Your task to perform on an android device: Open calendar and show me the fourth week of next month Image 0: 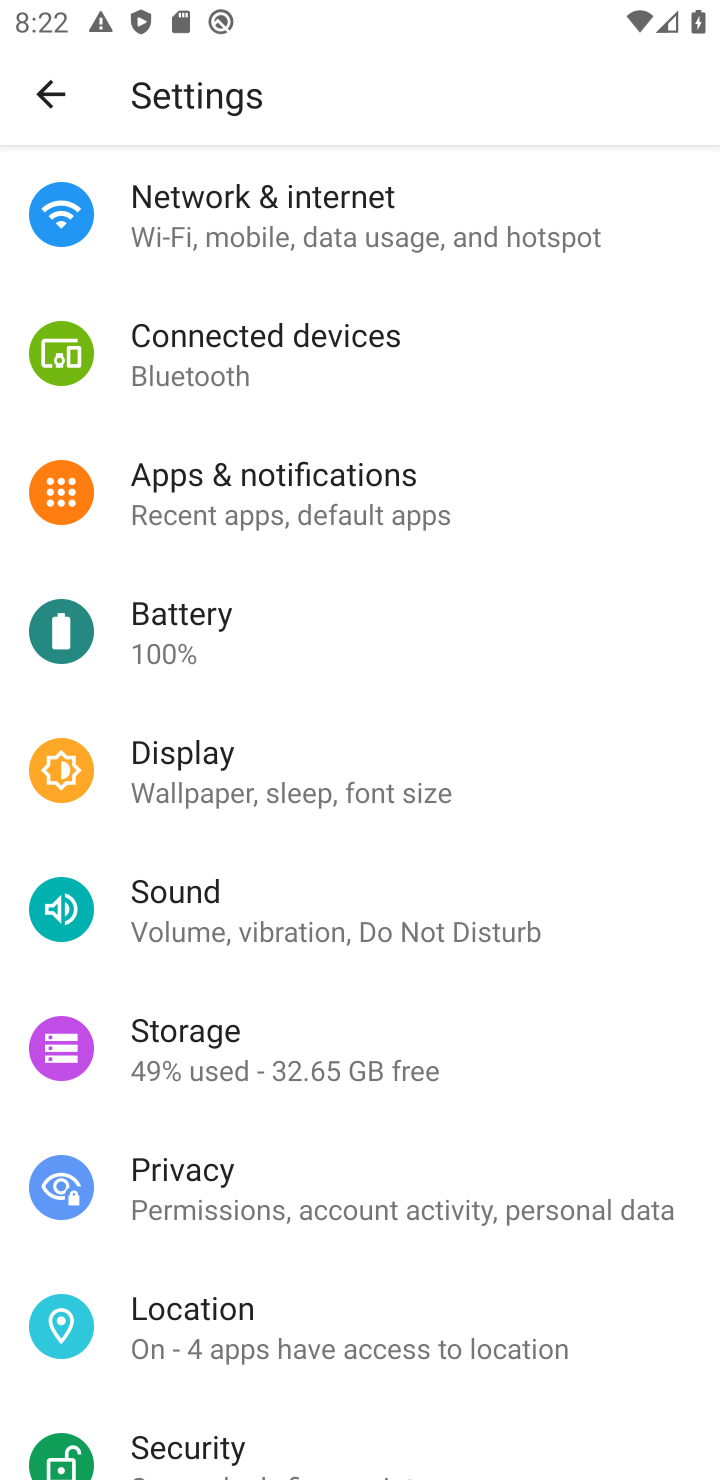
Step 0: press home button
Your task to perform on an android device: Open calendar and show me the fourth week of next month Image 1: 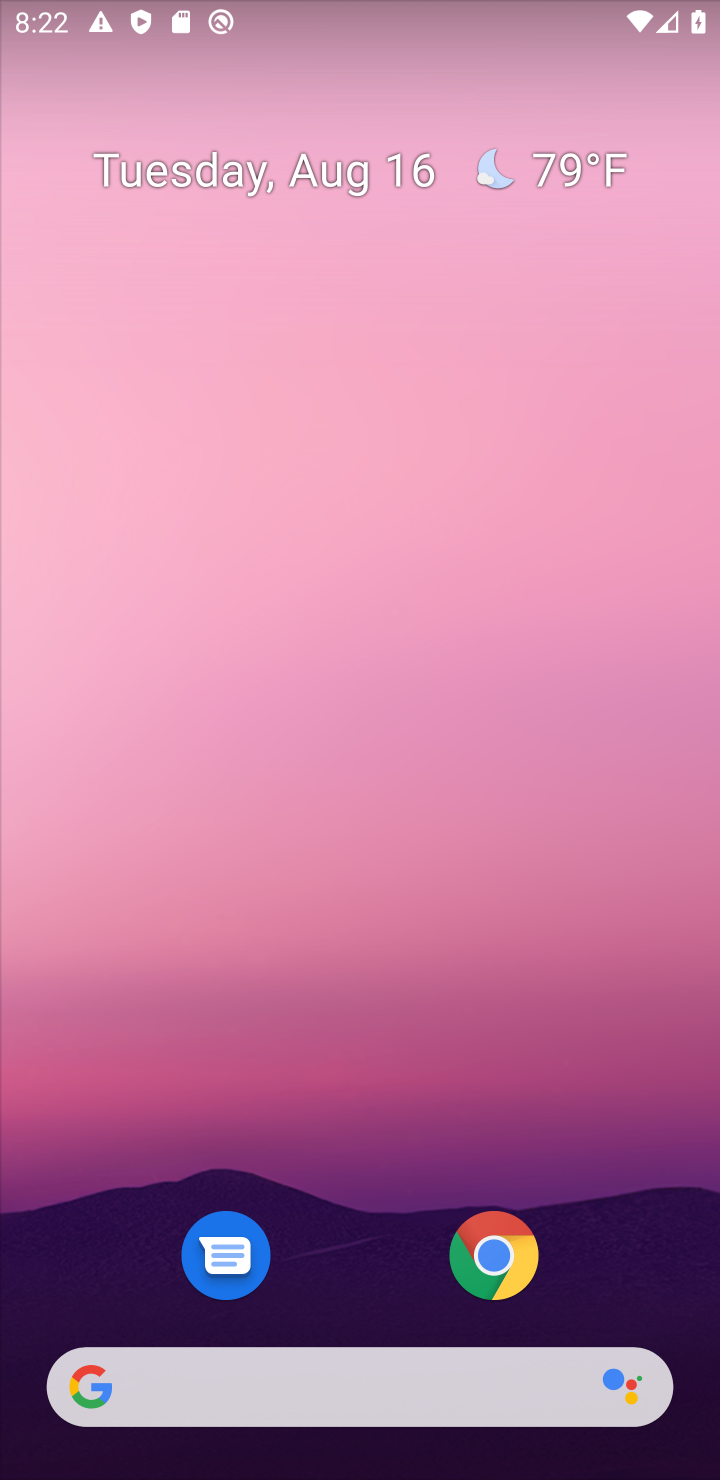
Step 1: drag from (343, 1360) to (346, 55)
Your task to perform on an android device: Open calendar and show me the fourth week of next month Image 2: 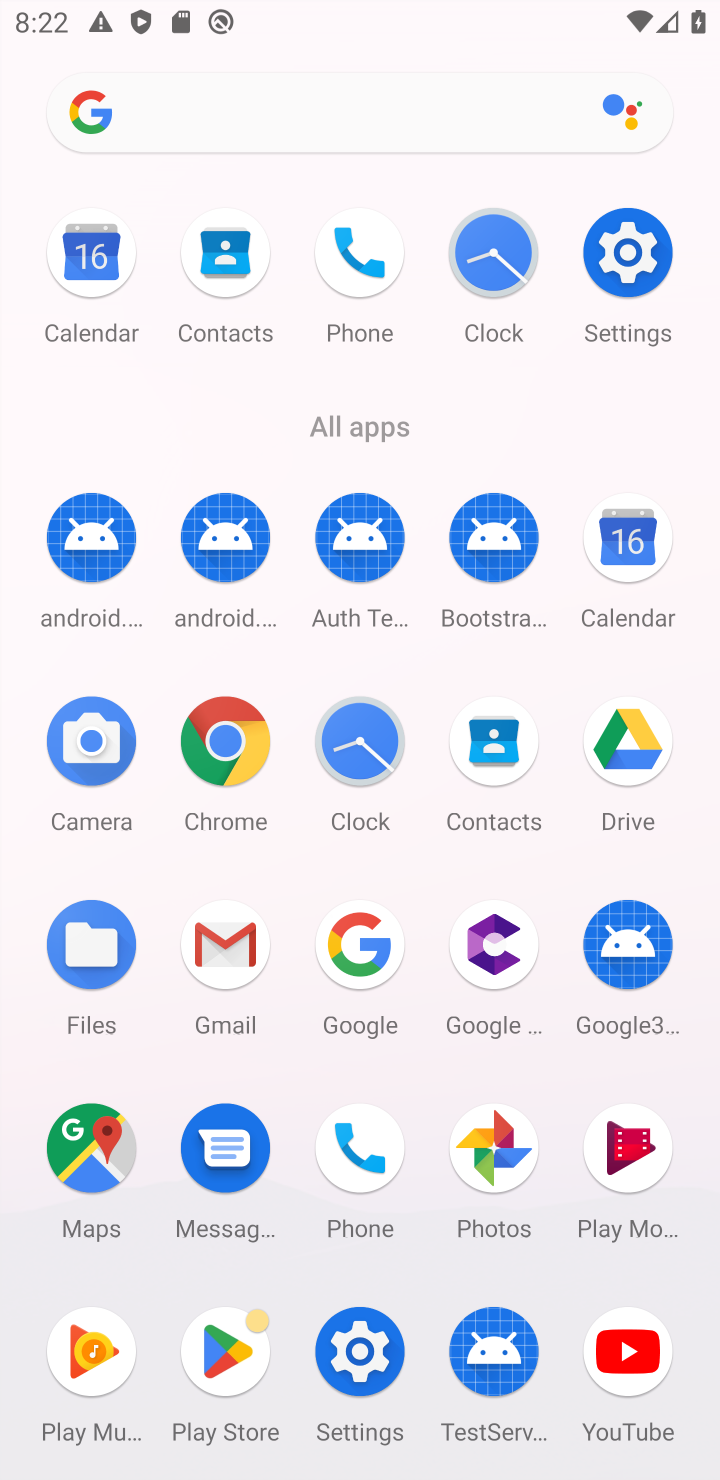
Step 2: click (633, 544)
Your task to perform on an android device: Open calendar and show me the fourth week of next month Image 3: 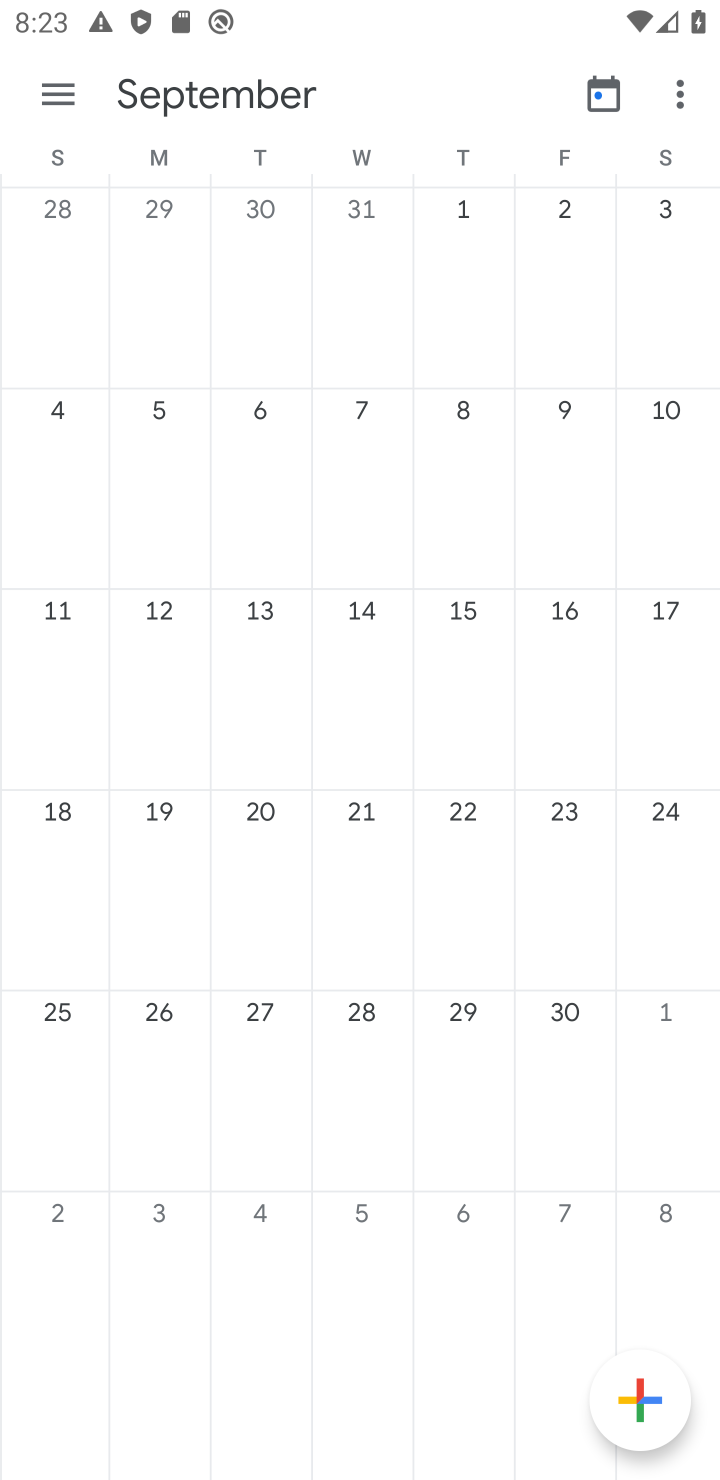
Step 3: task complete